Your task to perform on an android device: change the clock display to digital Image 0: 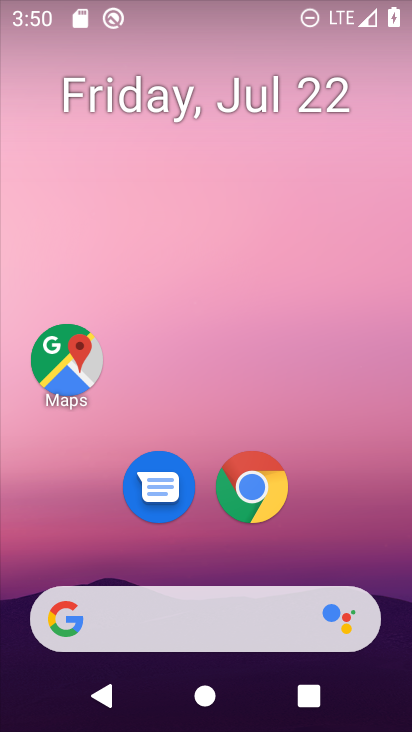
Step 0: drag from (177, 571) to (267, 21)
Your task to perform on an android device: change the clock display to digital Image 1: 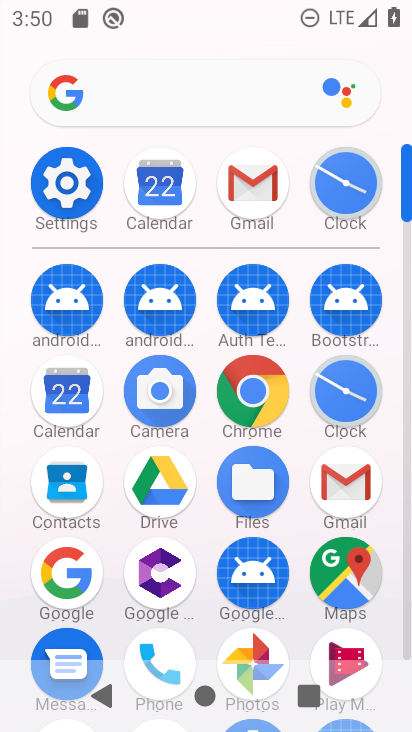
Step 1: click (342, 189)
Your task to perform on an android device: change the clock display to digital Image 2: 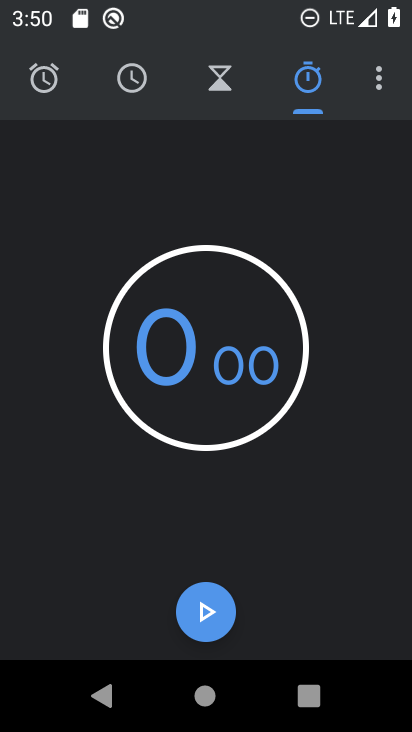
Step 2: click (370, 75)
Your task to perform on an android device: change the clock display to digital Image 3: 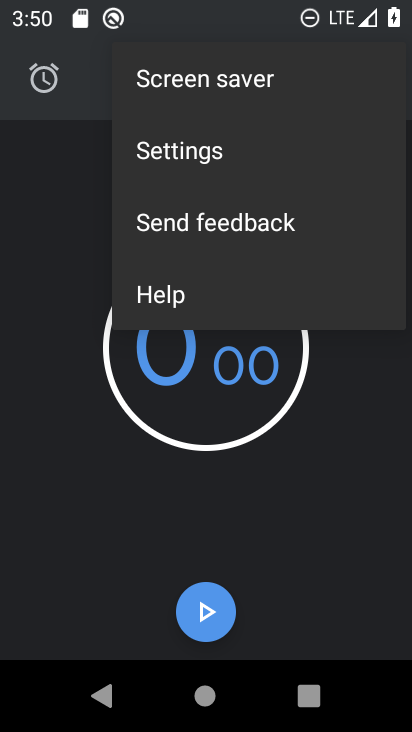
Step 3: click (203, 153)
Your task to perform on an android device: change the clock display to digital Image 4: 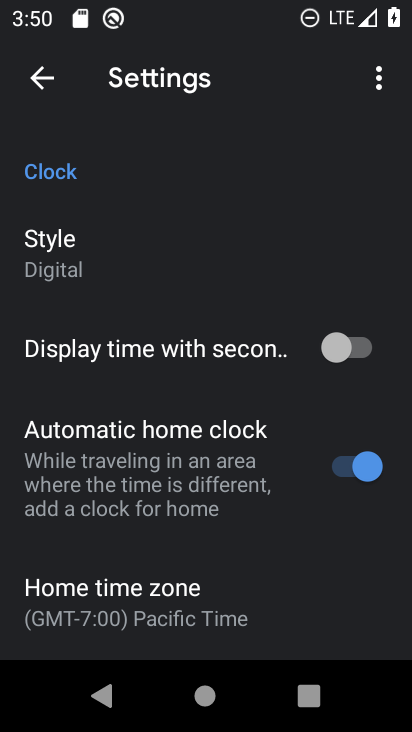
Step 4: task complete